Your task to perform on an android device: See recent photos Image 0: 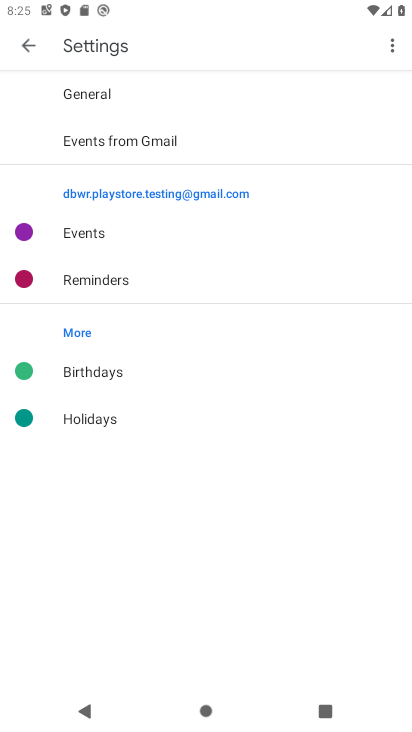
Step 0: press home button
Your task to perform on an android device: See recent photos Image 1: 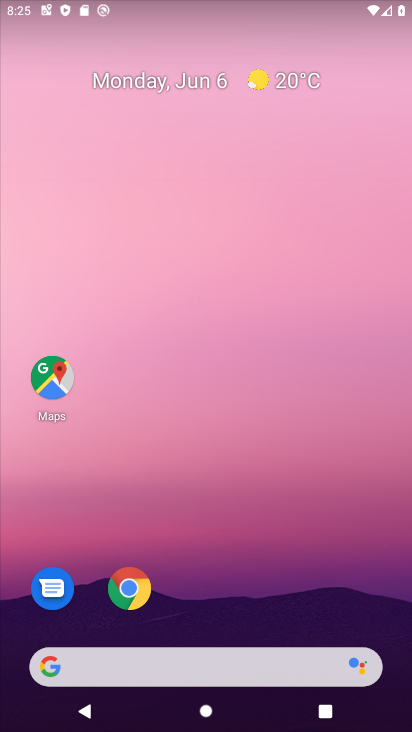
Step 1: drag from (159, 617) to (249, 122)
Your task to perform on an android device: See recent photos Image 2: 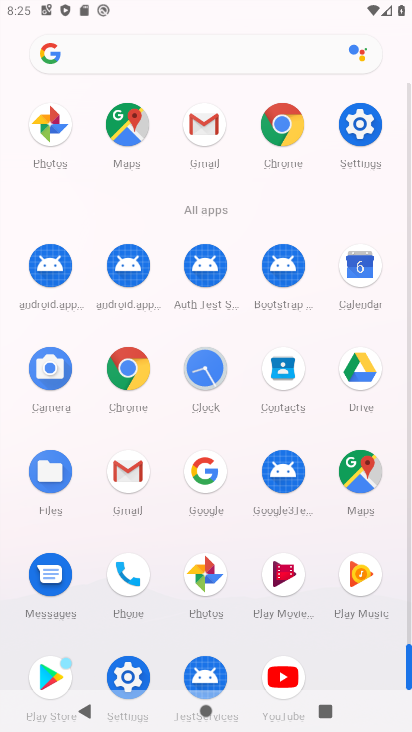
Step 2: click (203, 567)
Your task to perform on an android device: See recent photos Image 3: 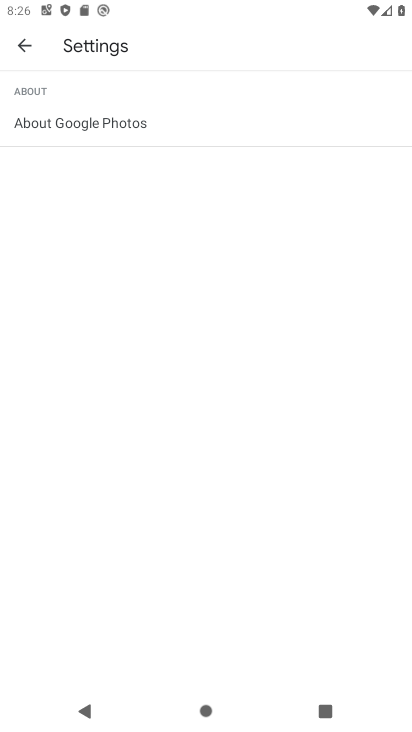
Step 3: click (24, 60)
Your task to perform on an android device: See recent photos Image 4: 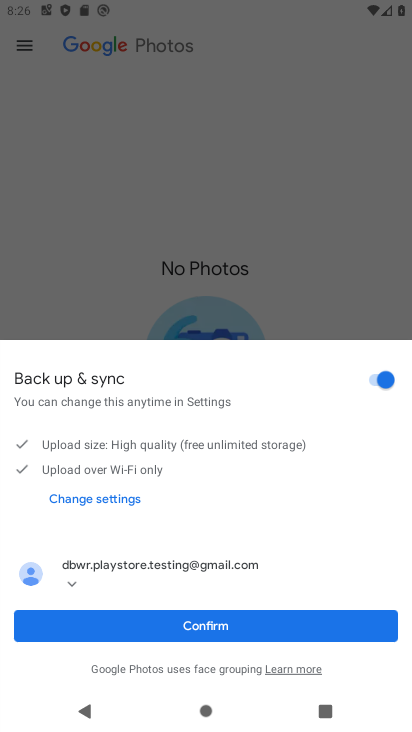
Step 4: click (269, 628)
Your task to perform on an android device: See recent photos Image 5: 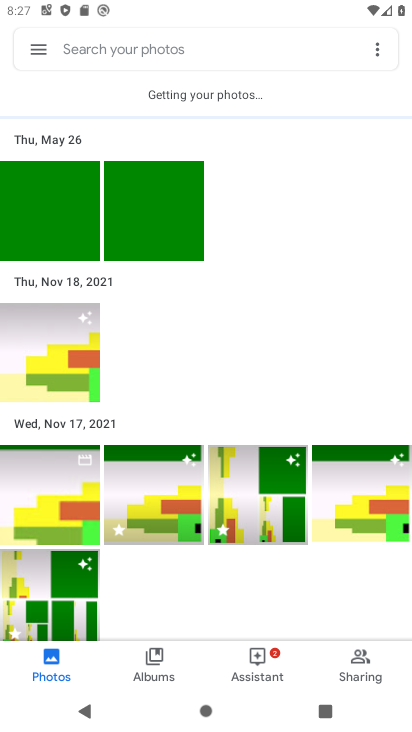
Step 5: task complete